Your task to perform on an android device: Do I have any events tomorrow? Image 0: 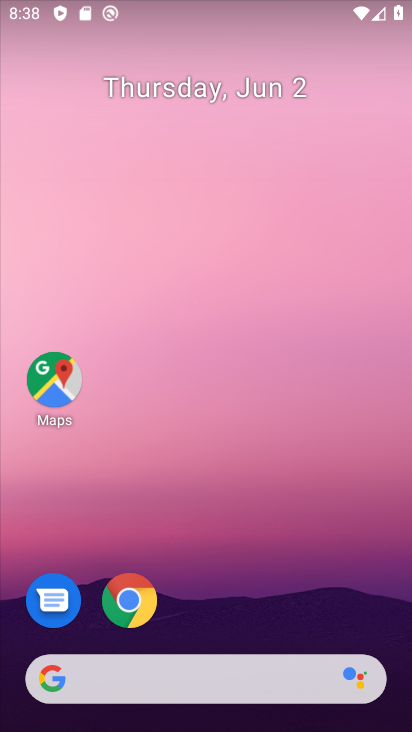
Step 0: drag from (179, 558) to (189, 44)
Your task to perform on an android device: Do I have any events tomorrow? Image 1: 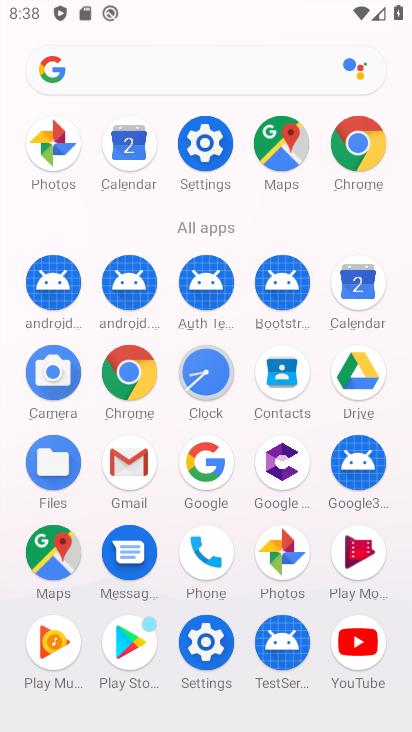
Step 1: click (362, 290)
Your task to perform on an android device: Do I have any events tomorrow? Image 2: 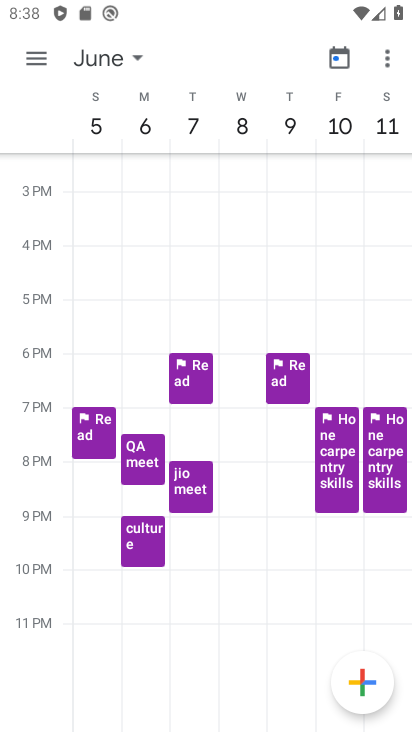
Step 2: drag from (159, 290) to (362, 318)
Your task to perform on an android device: Do I have any events tomorrow? Image 3: 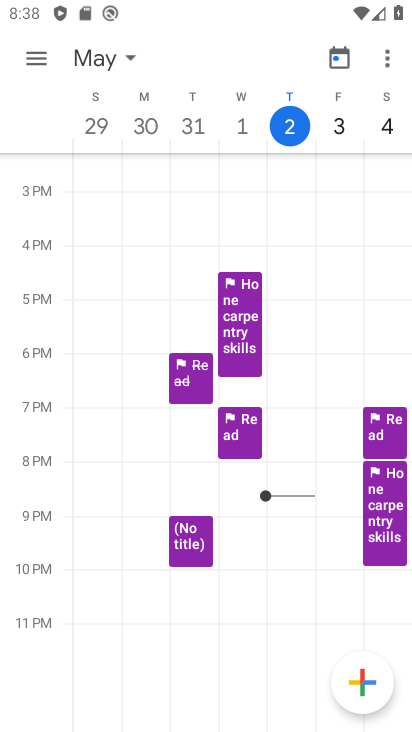
Step 3: click (337, 129)
Your task to perform on an android device: Do I have any events tomorrow? Image 4: 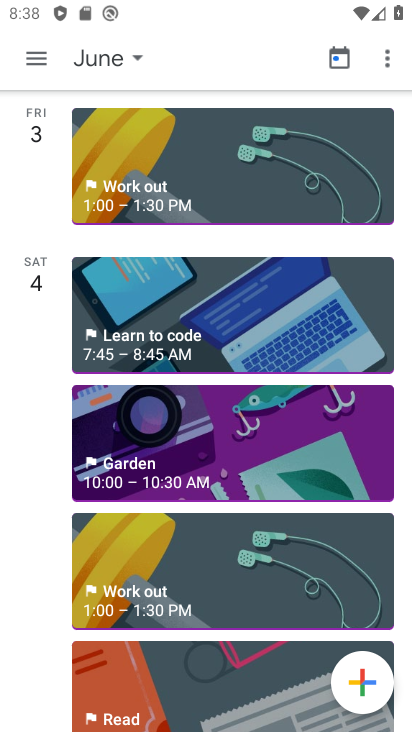
Step 4: task complete